Your task to perform on an android device: Search for vegetarian restaurants on Maps Image 0: 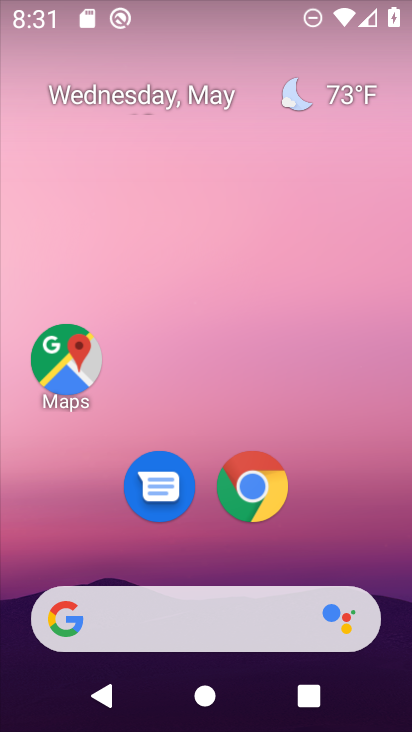
Step 0: click (67, 358)
Your task to perform on an android device: Search for vegetarian restaurants on Maps Image 1: 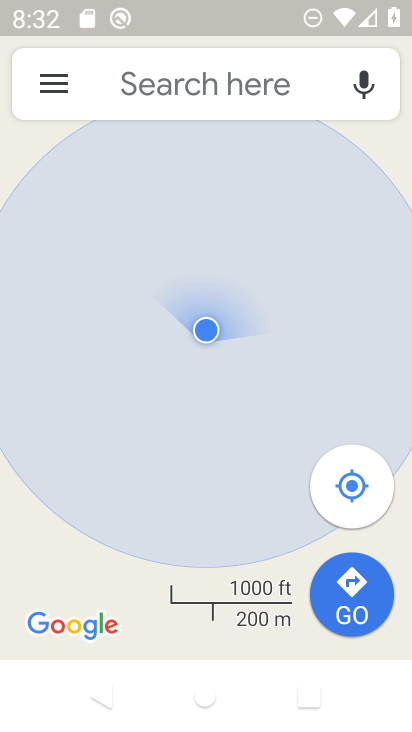
Step 1: click (176, 85)
Your task to perform on an android device: Search for vegetarian restaurants on Maps Image 2: 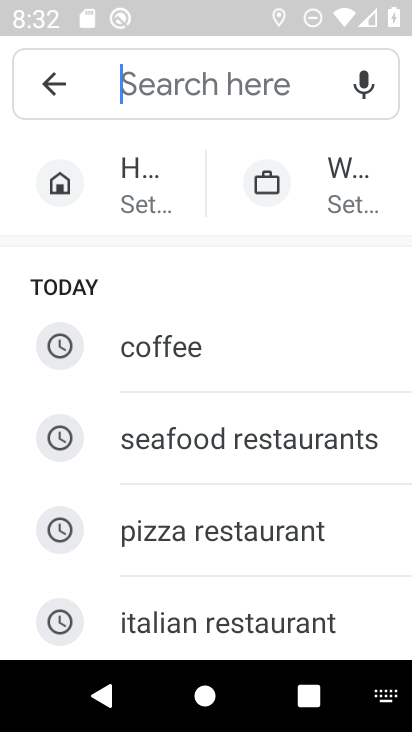
Step 2: type "vegetarian restaurants"
Your task to perform on an android device: Search for vegetarian restaurants on Maps Image 3: 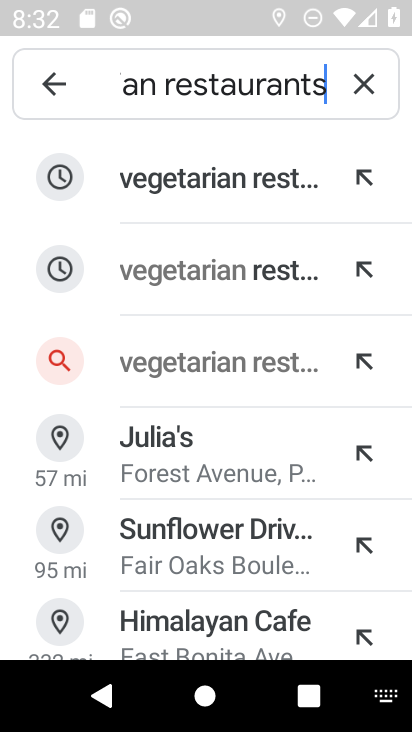
Step 3: click (195, 177)
Your task to perform on an android device: Search for vegetarian restaurants on Maps Image 4: 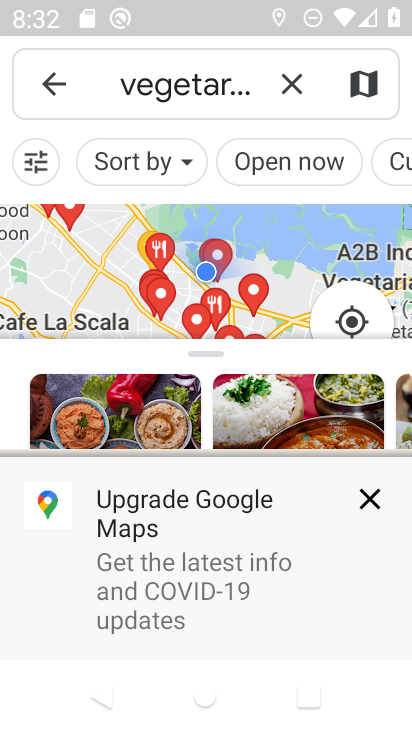
Step 4: click (372, 497)
Your task to perform on an android device: Search for vegetarian restaurants on Maps Image 5: 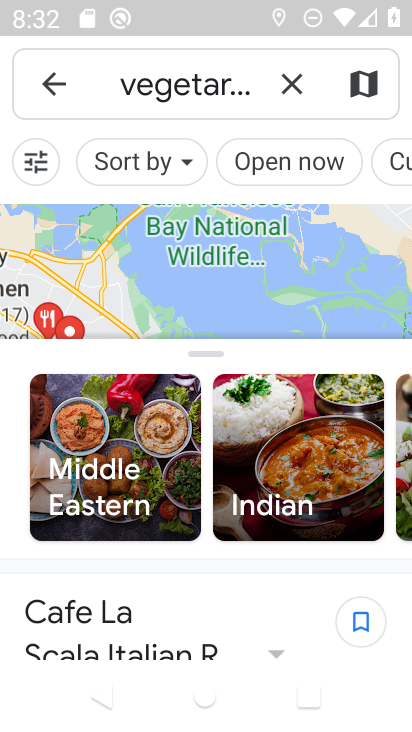
Step 5: task complete